Your task to perform on an android device: open sync settings in chrome Image 0: 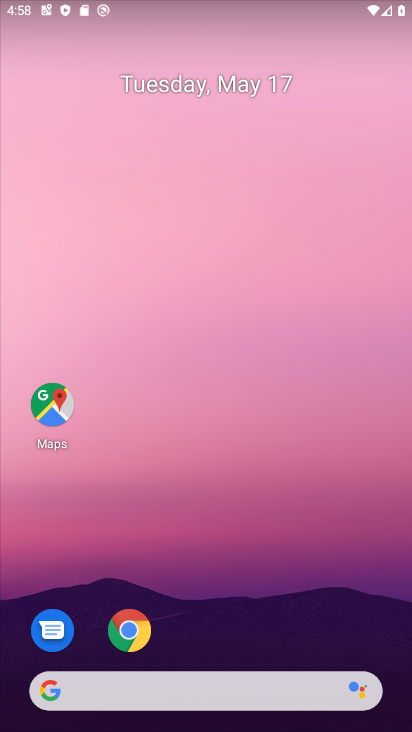
Step 0: click (261, 615)
Your task to perform on an android device: open sync settings in chrome Image 1: 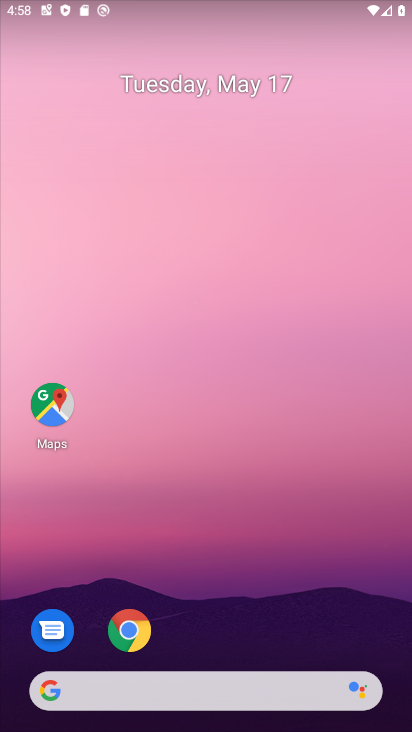
Step 1: click (131, 626)
Your task to perform on an android device: open sync settings in chrome Image 2: 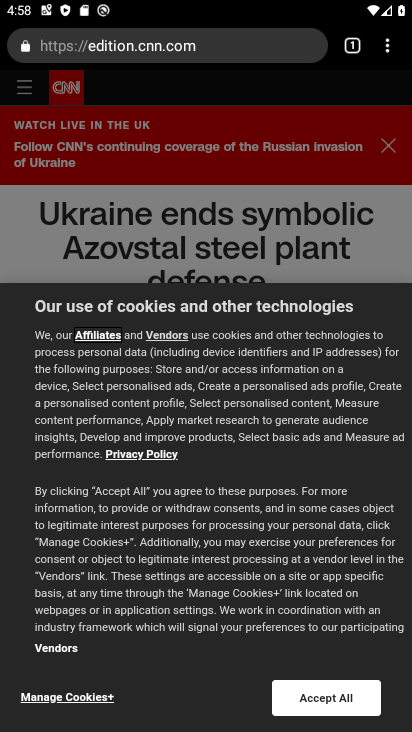
Step 2: drag from (387, 48) to (266, 498)
Your task to perform on an android device: open sync settings in chrome Image 3: 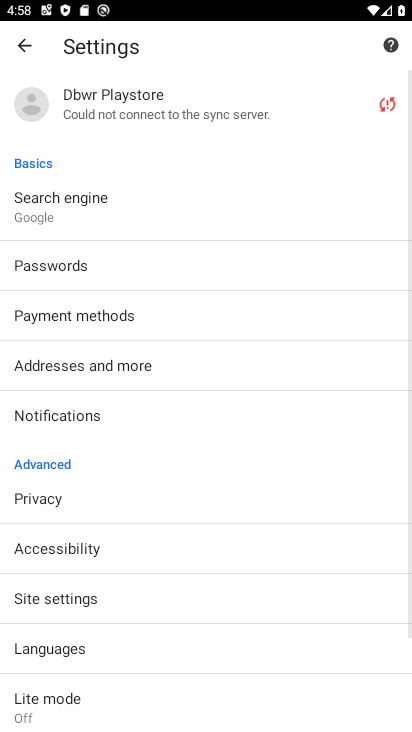
Step 3: click (119, 105)
Your task to perform on an android device: open sync settings in chrome Image 4: 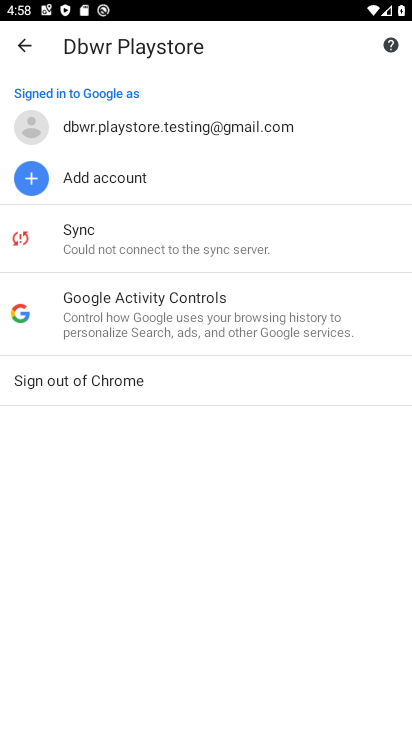
Step 4: click (127, 245)
Your task to perform on an android device: open sync settings in chrome Image 5: 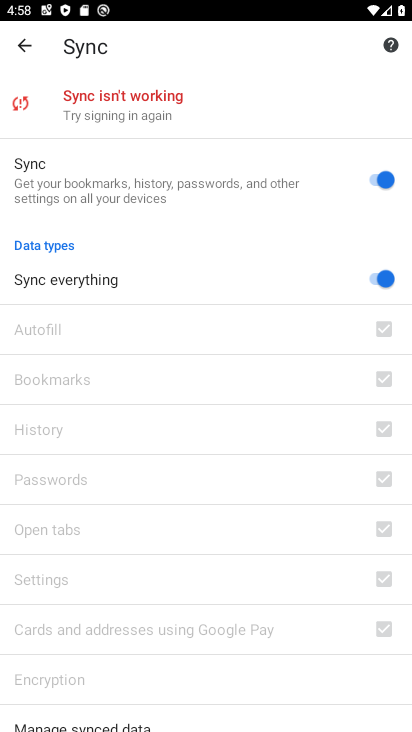
Step 5: task complete